Your task to perform on an android device: Go to Android settings Image 0: 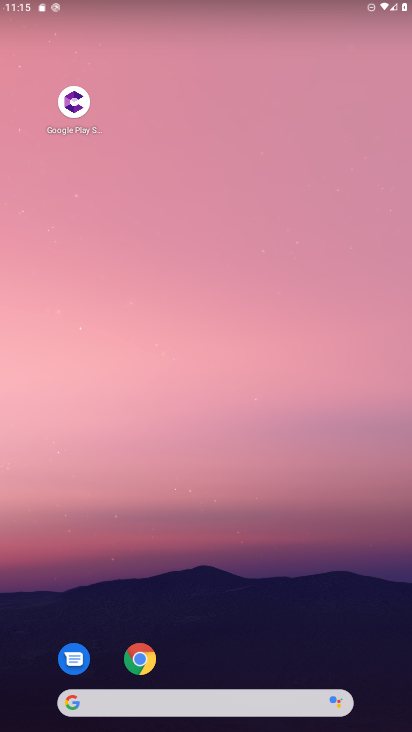
Step 0: drag from (316, 611) to (260, 72)
Your task to perform on an android device: Go to Android settings Image 1: 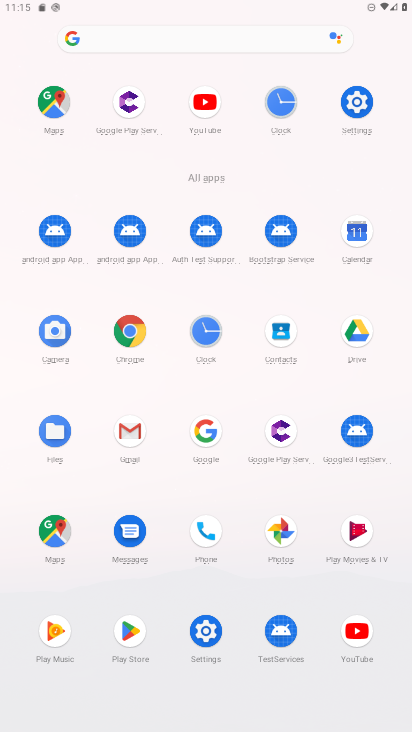
Step 1: click (365, 113)
Your task to perform on an android device: Go to Android settings Image 2: 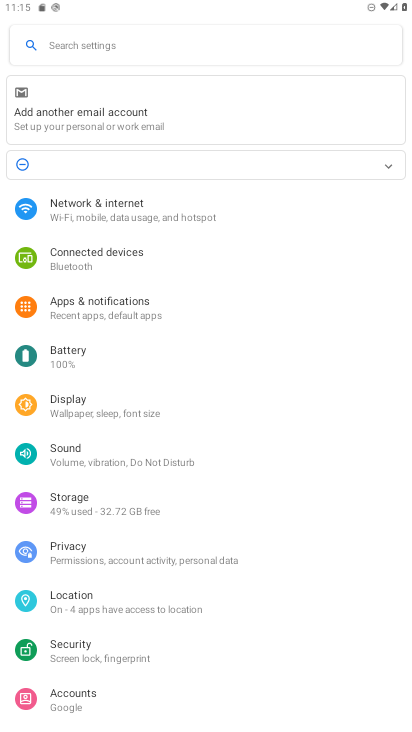
Step 2: task complete